Your task to perform on an android device: Go to battery settings Image 0: 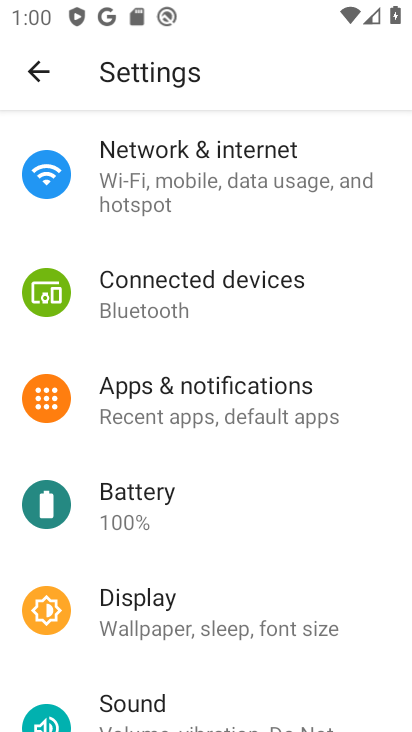
Step 0: click (162, 516)
Your task to perform on an android device: Go to battery settings Image 1: 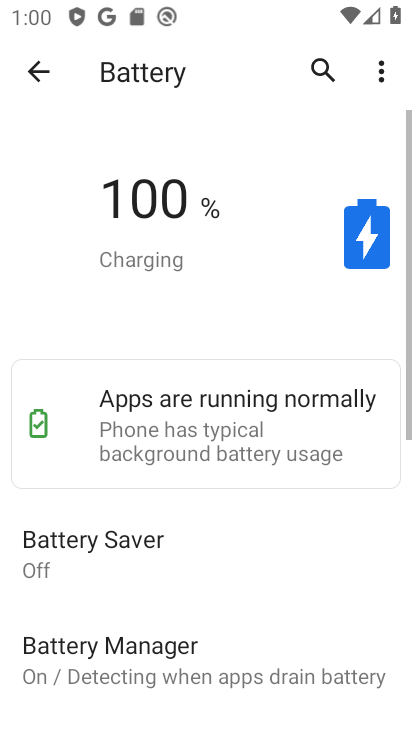
Step 1: task complete